Your task to perform on an android device: uninstall "Messages" Image 0: 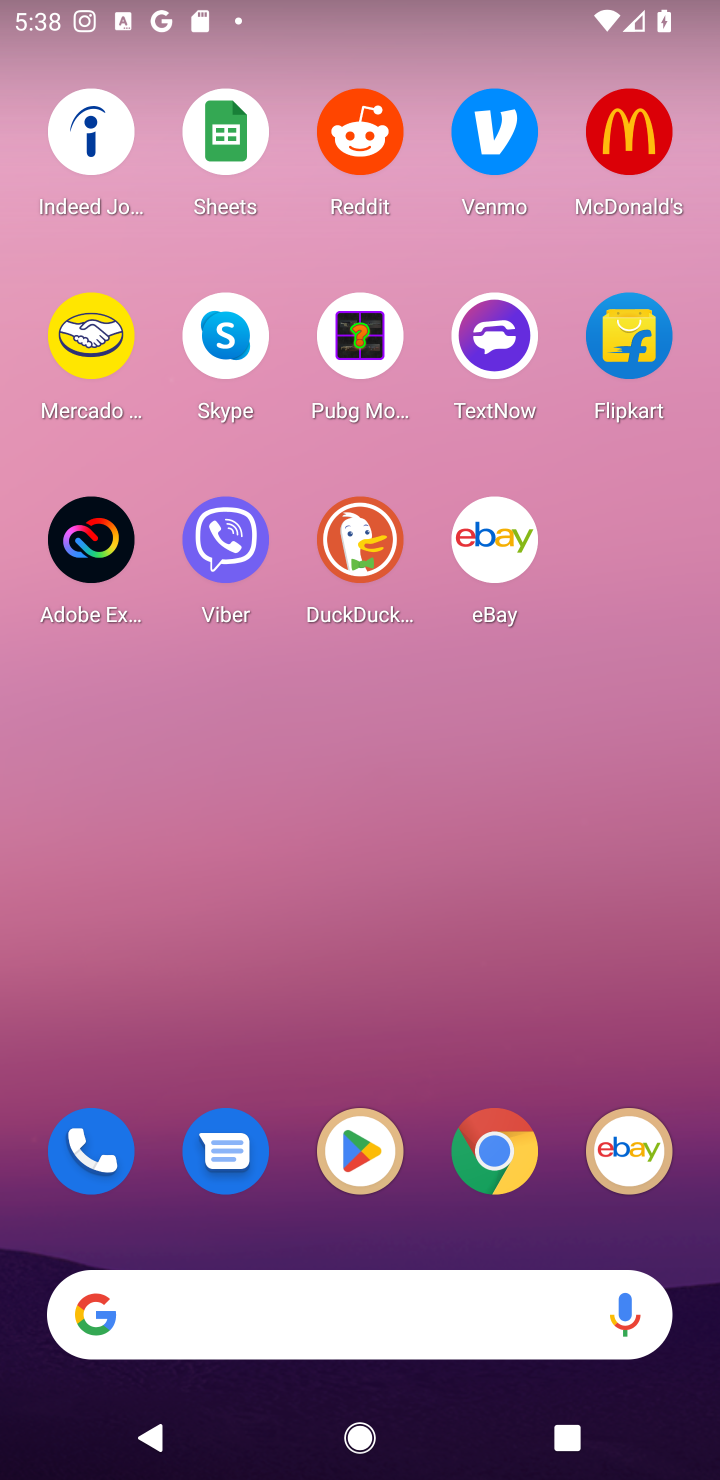
Step 0: press home button
Your task to perform on an android device: uninstall "Messages" Image 1: 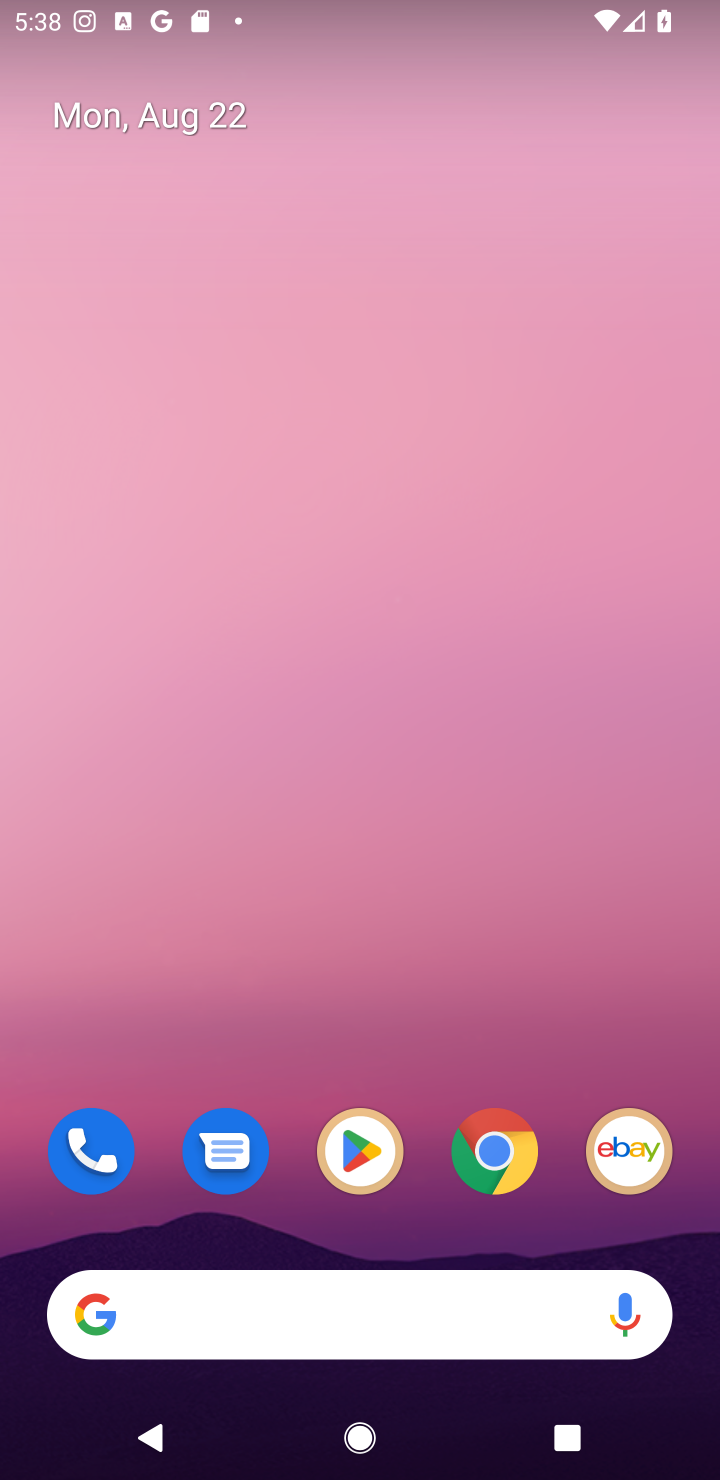
Step 1: click (336, 1153)
Your task to perform on an android device: uninstall "Messages" Image 2: 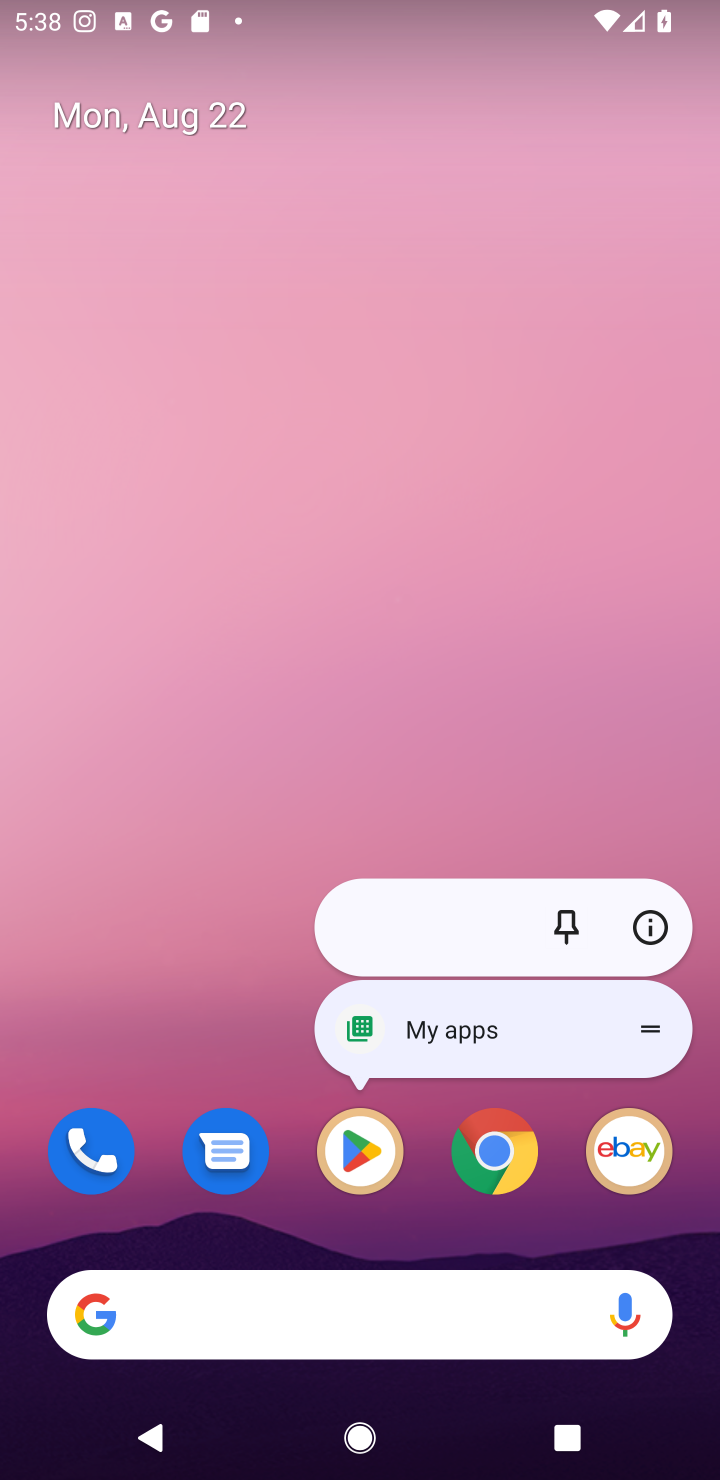
Step 2: click (348, 1149)
Your task to perform on an android device: uninstall "Messages" Image 3: 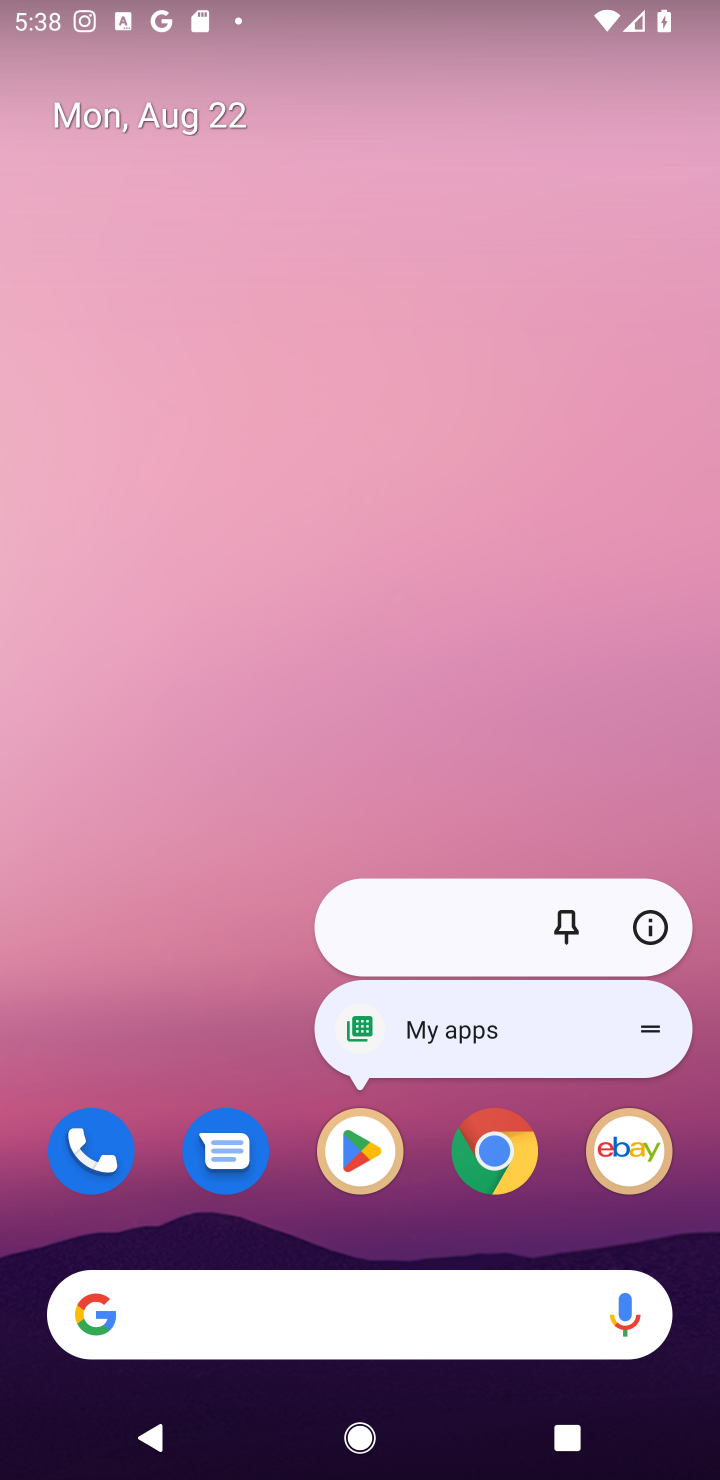
Step 3: click (348, 1149)
Your task to perform on an android device: uninstall "Messages" Image 4: 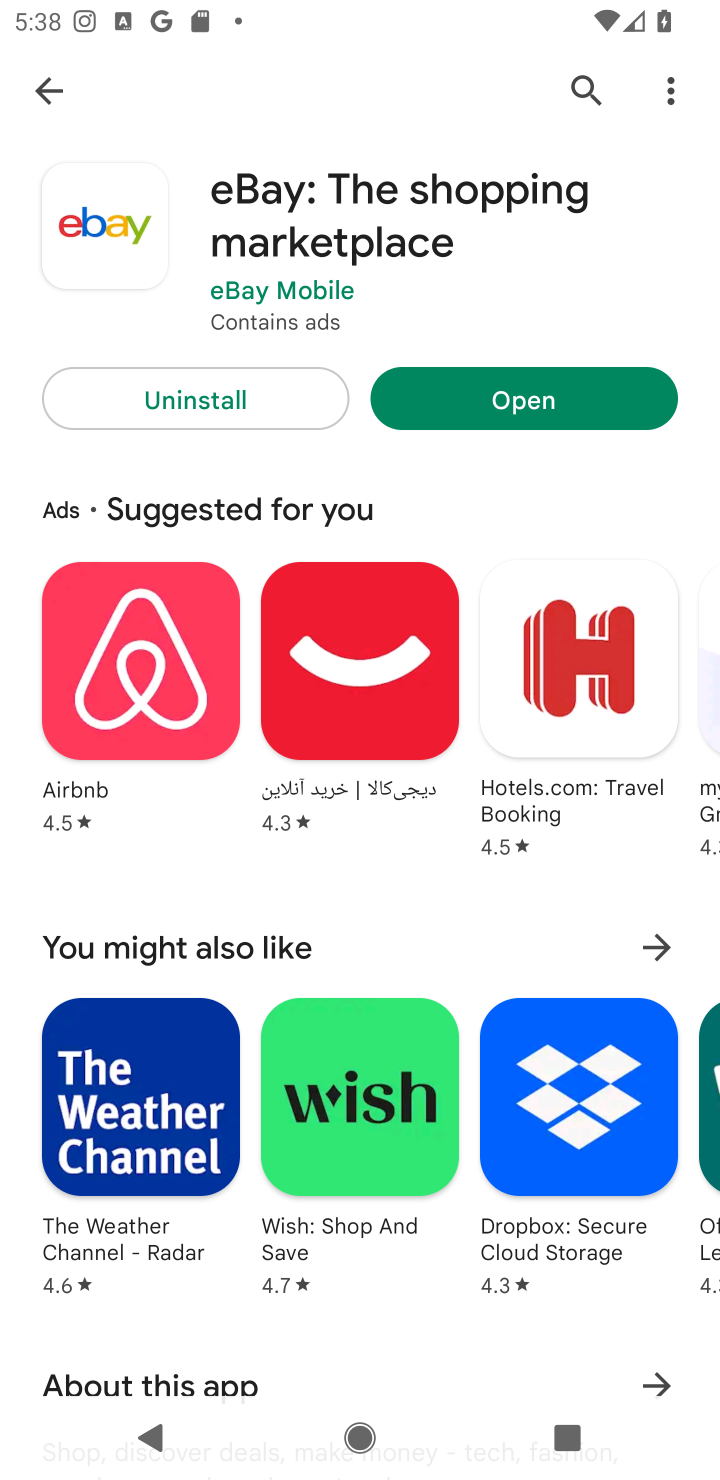
Step 4: click (572, 85)
Your task to perform on an android device: uninstall "Messages" Image 5: 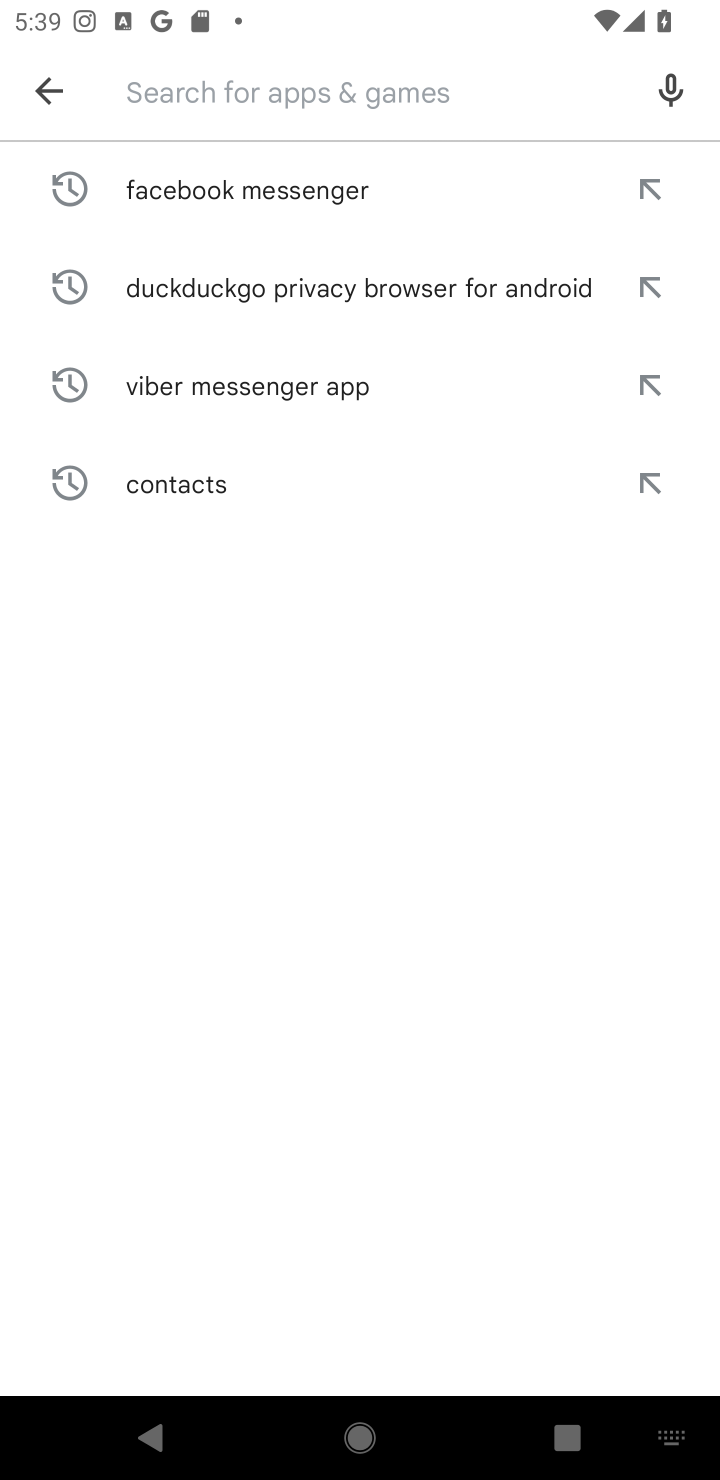
Step 5: type "Messages"
Your task to perform on an android device: uninstall "Messages" Image 6: 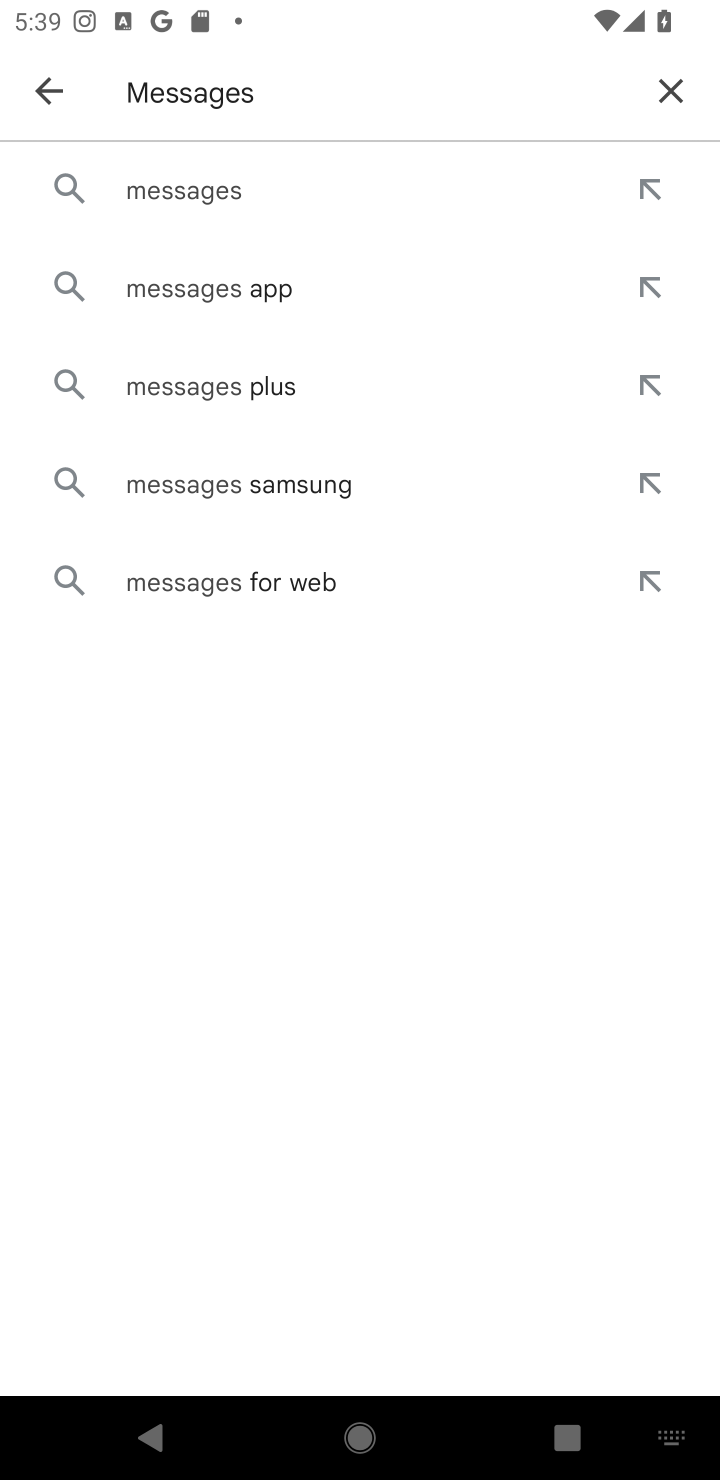
Step 6: click (227, 174)
Your task to perform on an android device: uninstall "Messages" Image 7: 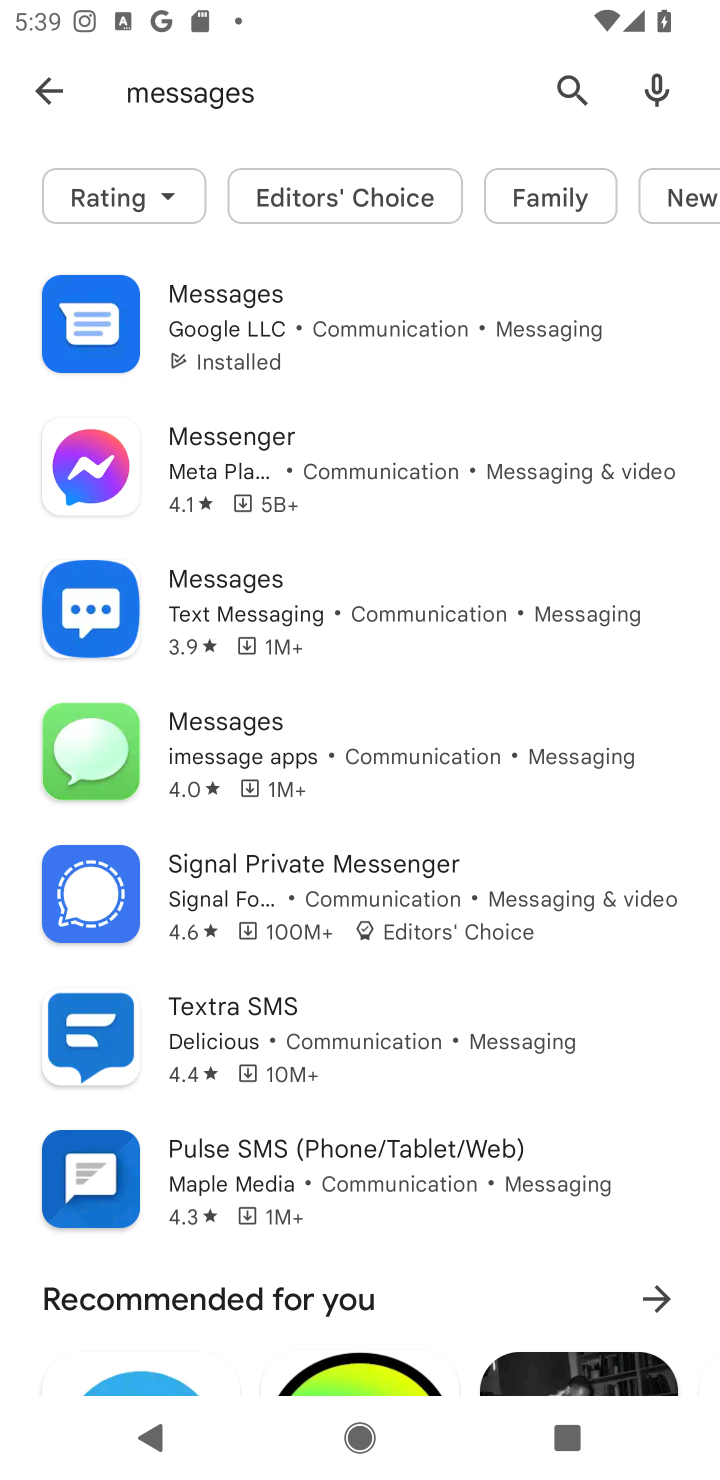
Step 7: click (273, 343)
Your task to perform on an android device: uninstall "Messages" Image 8: 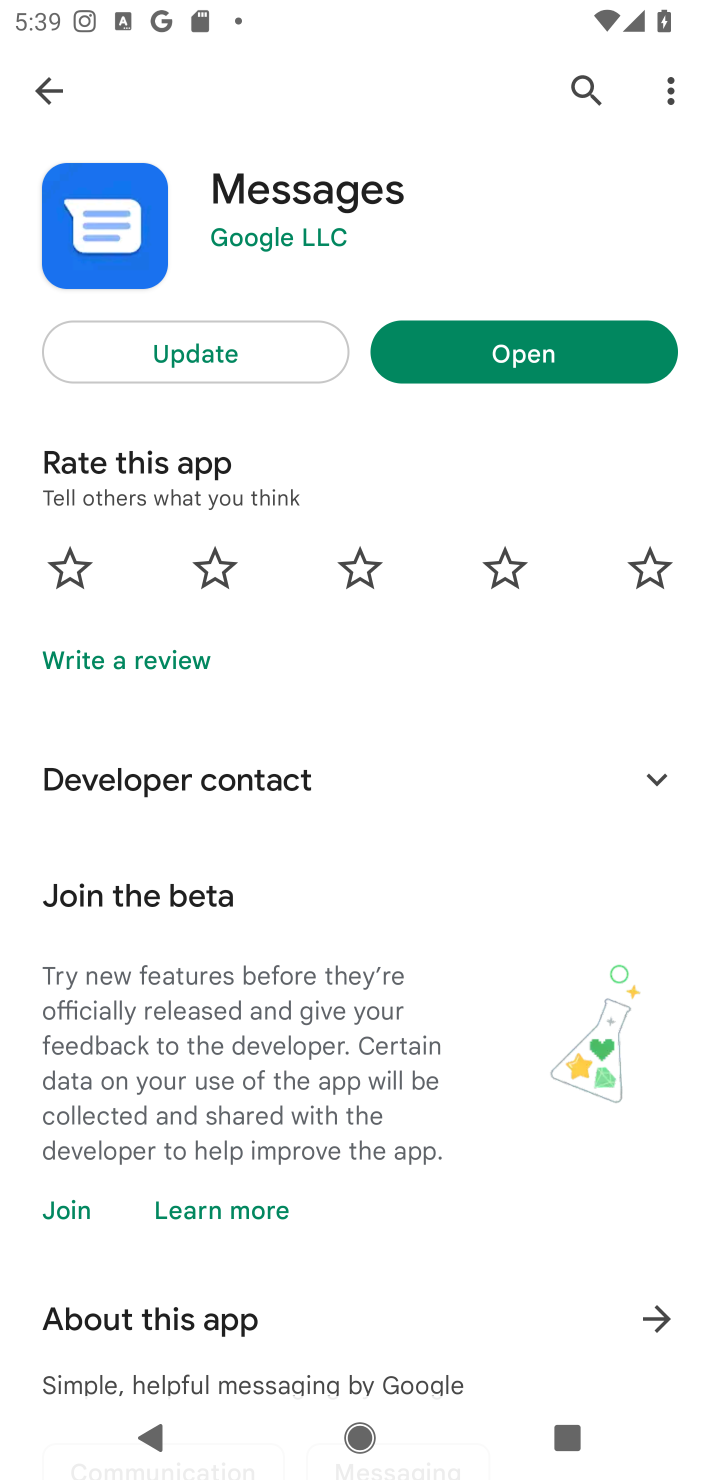
Step 8: task complete